Your task to perform on an android device: Show me recent news Image 0: 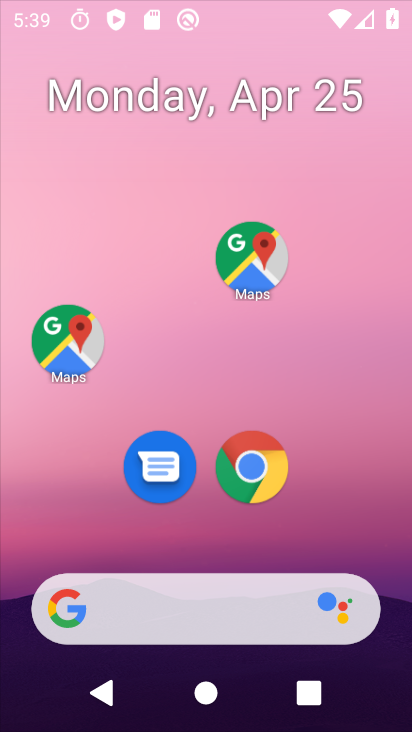
Step 0: click (288, 6)
Your task to perform on an android device: Show me recent news Image 1: 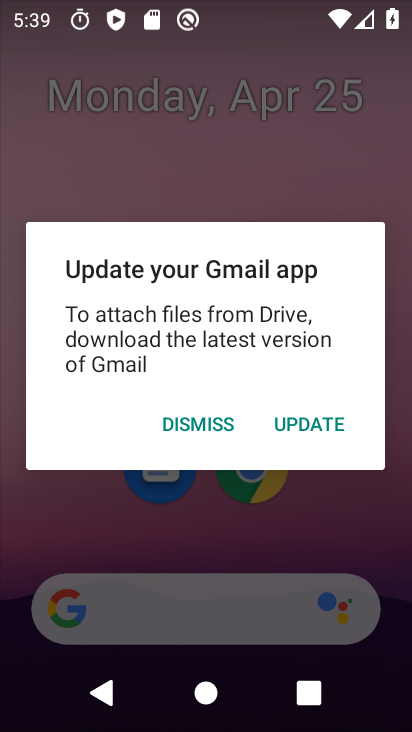
Step 1: press home button
Your task to perform on an android device: Show me recent news Image 2: 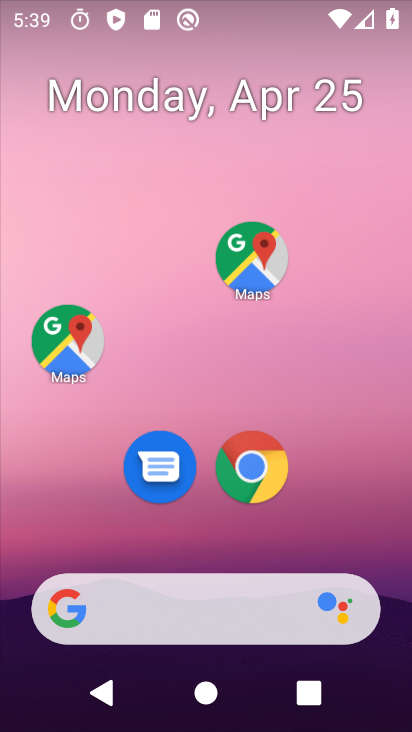
Step 2: drag from (305, 558) to (316, 8)
Your task to perform on an android device: Show me recent news Image 3: 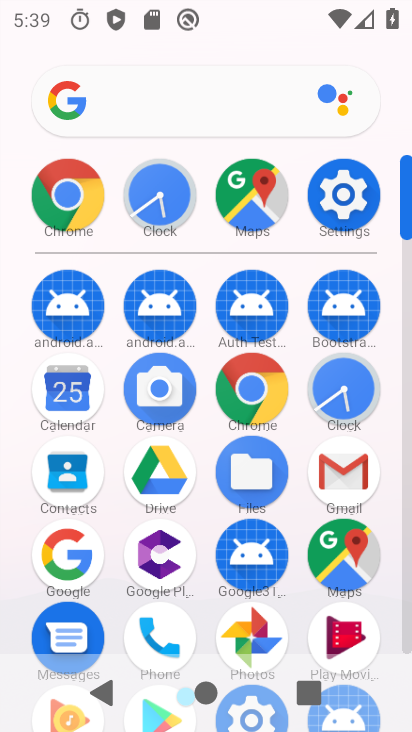
Step 3: click (256, 392)
Your task to perform on an android device: Show me recent news Image 4: 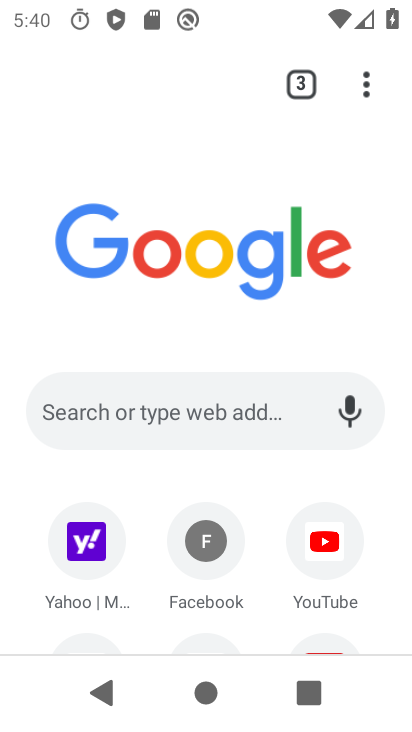
Step 4: click (215, 410)
Your task to perform on an android device: Show me recent news Image 5: 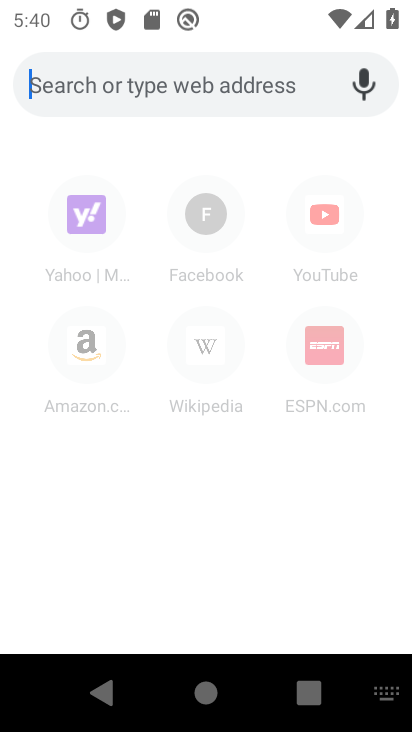
Step 5: type "recent news"
Your task to perform on an android device: Show me recent news Image 6: 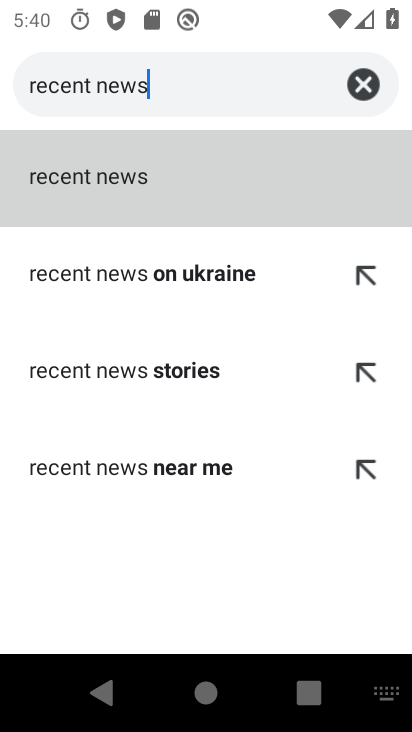
Step 6: click (93, 167)
Your task to perform on an android device: Show me recent news Image 7: 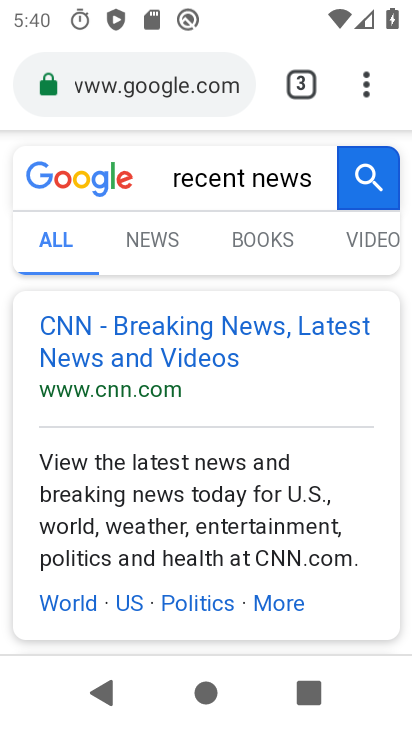
Step 7: task complete